Your task to perform on an android device: open app "File Manager" Image 0: 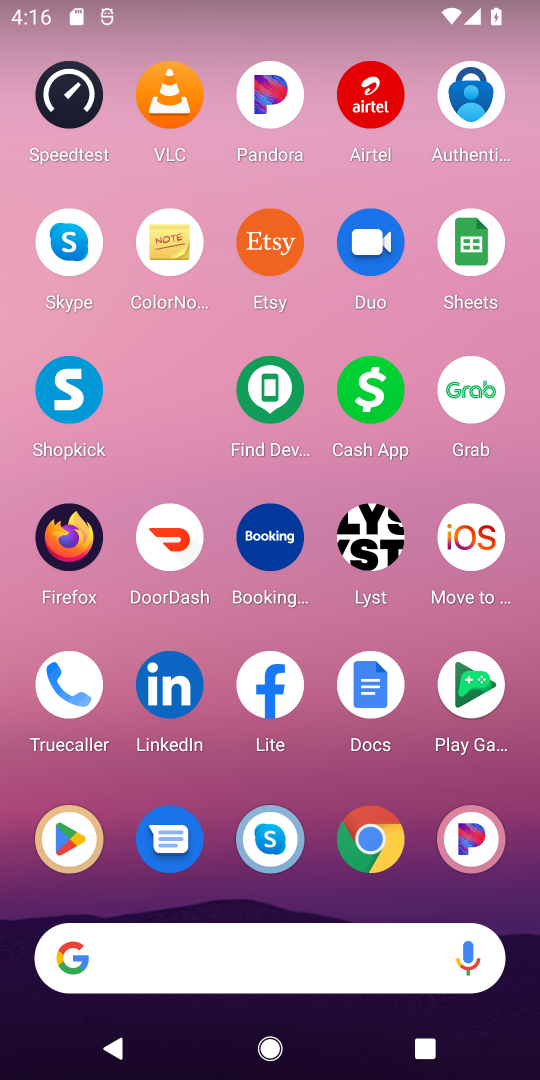
Step 0: click (83, 830)
Your task to perform on an android device: open app "File Manager" Image 1: 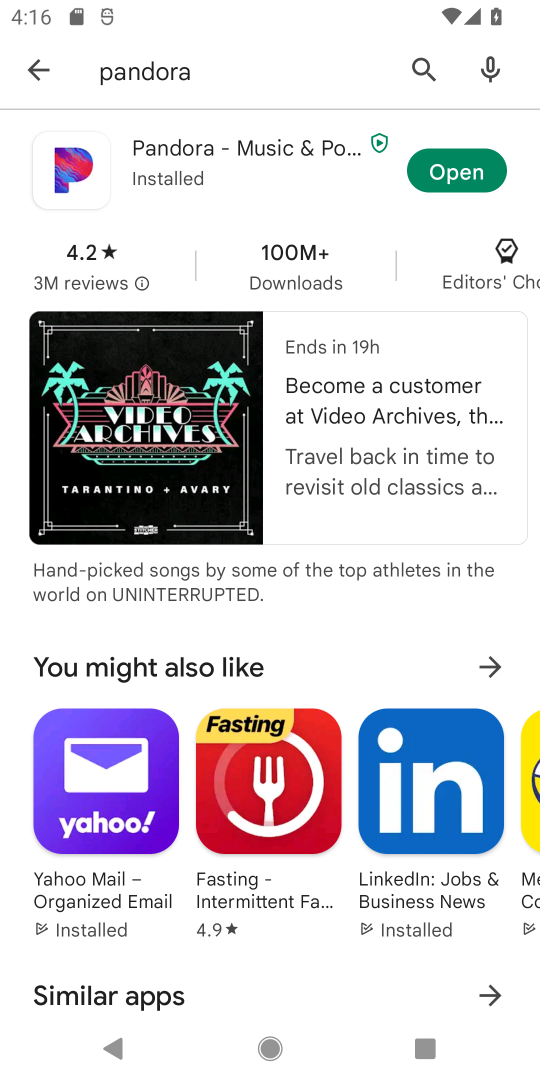
Step 1: click (440, 87)
Your task to perform on an android device: open app "File Manager" Image 2: 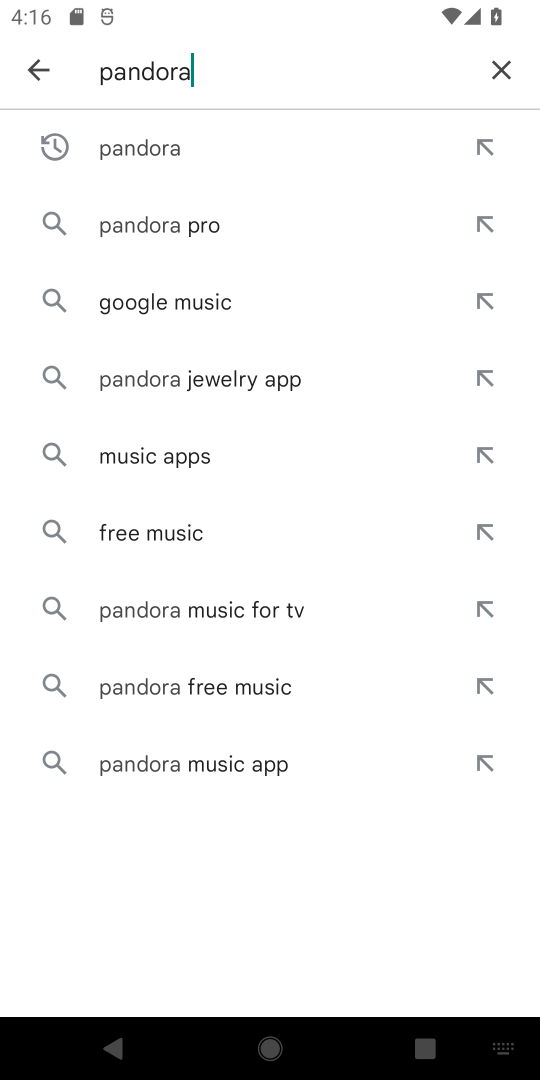
Step 2: click (486, 76)
Your task to perform on an android device: open app "File Manager" Image 3: 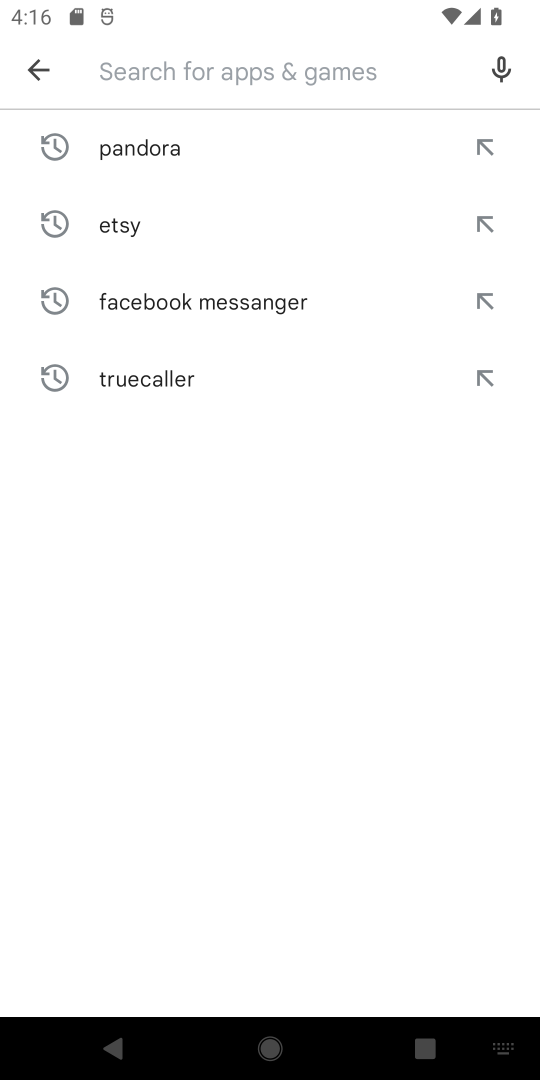
Step 3: type "file manger"
Your task to perform on an android device: open app "File Manager" Image 4: 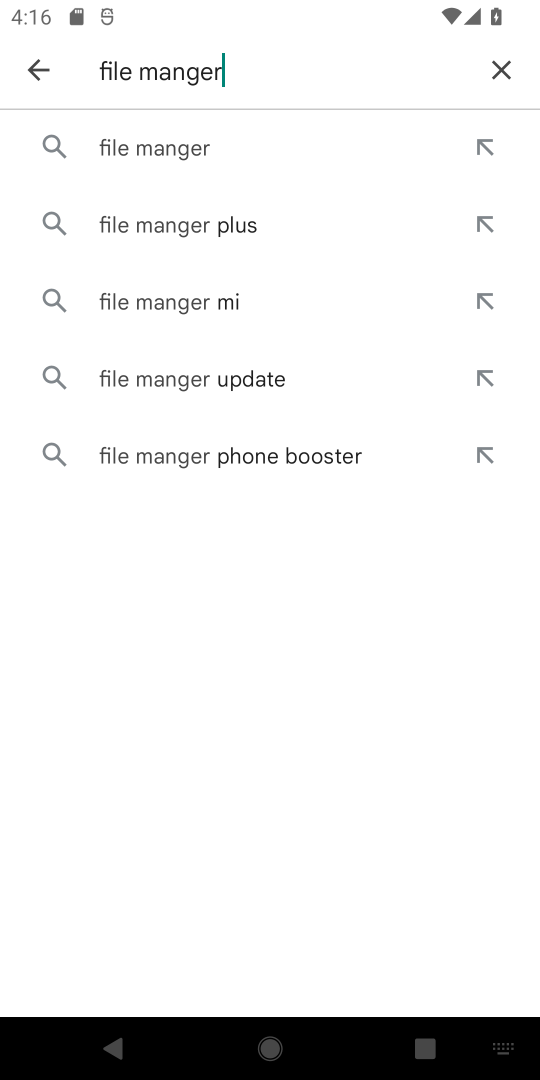
Step 4: click (227, 170)
Your task to perform on an android device: open app "File Manager" Image 5: 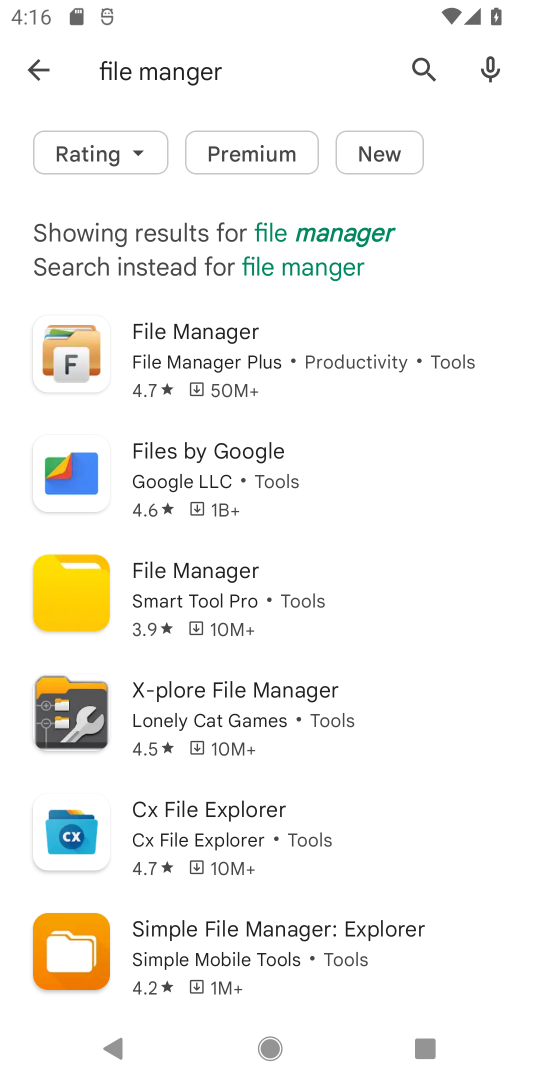
Step 5: click (276, 465)
Your task to perform on an android device: open app "File Manager" Image 6: 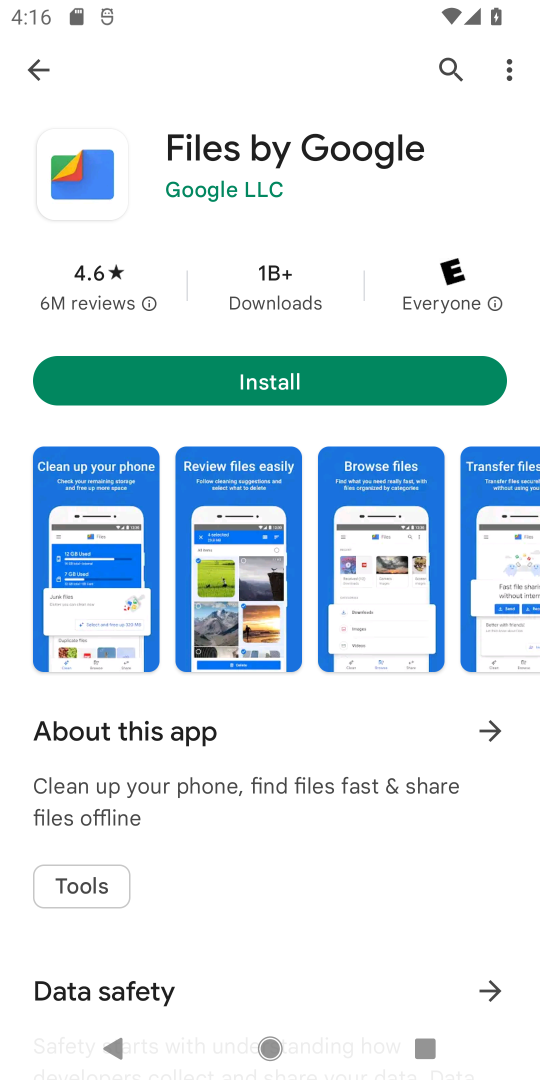
Step 6: click (313, 398)
Your task to perform on an android device: open app "File Manager" Image 7: 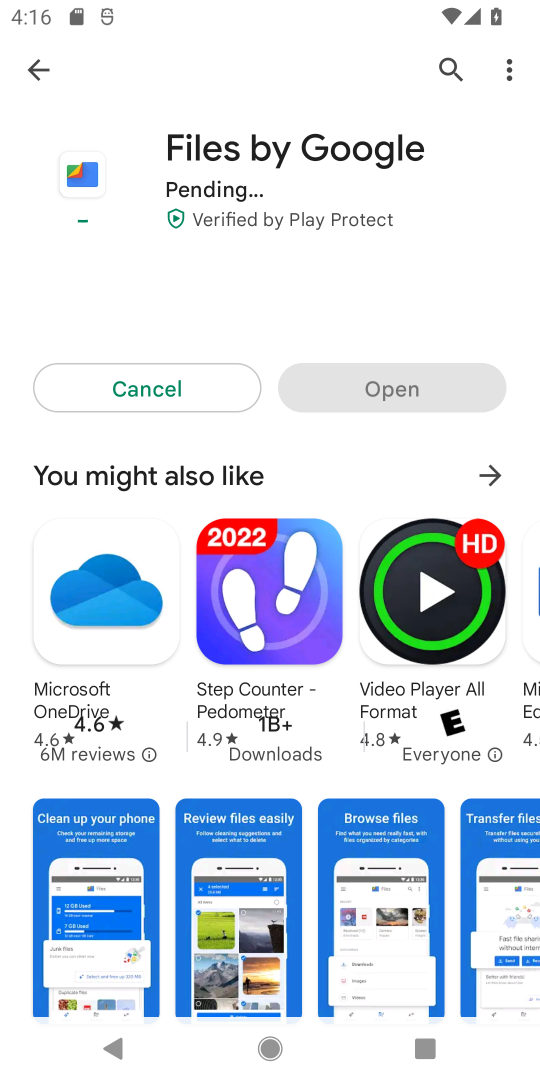
Step 7: task complete